Your task to perform on an android device: Go to calendar. Show me events next week Image 0: 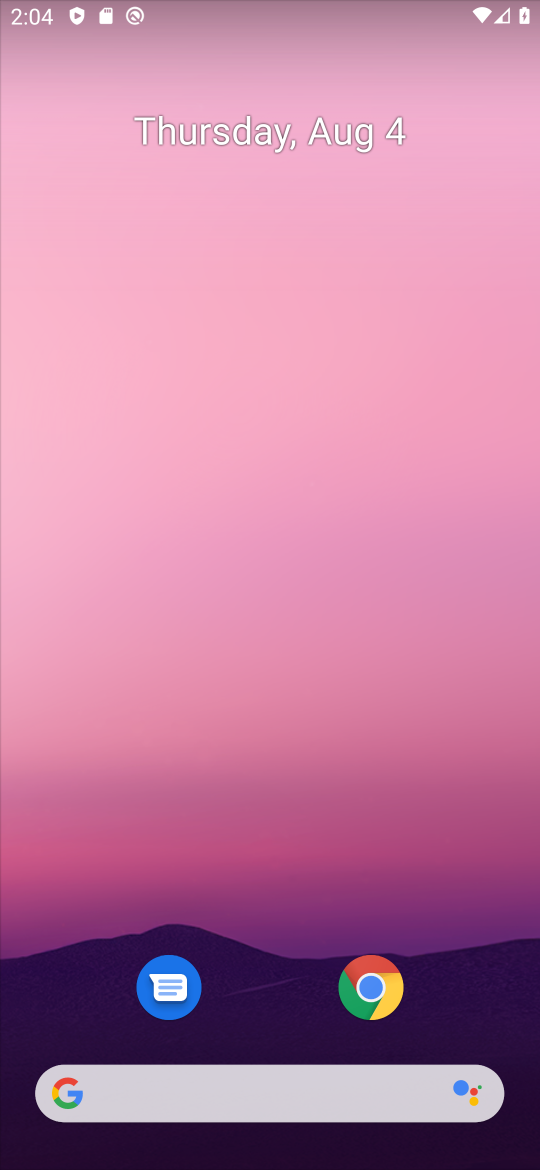
Step 0: drag from (494, 975) to (306, 184)
Your task to perform on an android device: Go to calendar. Show me events next week Image 1: 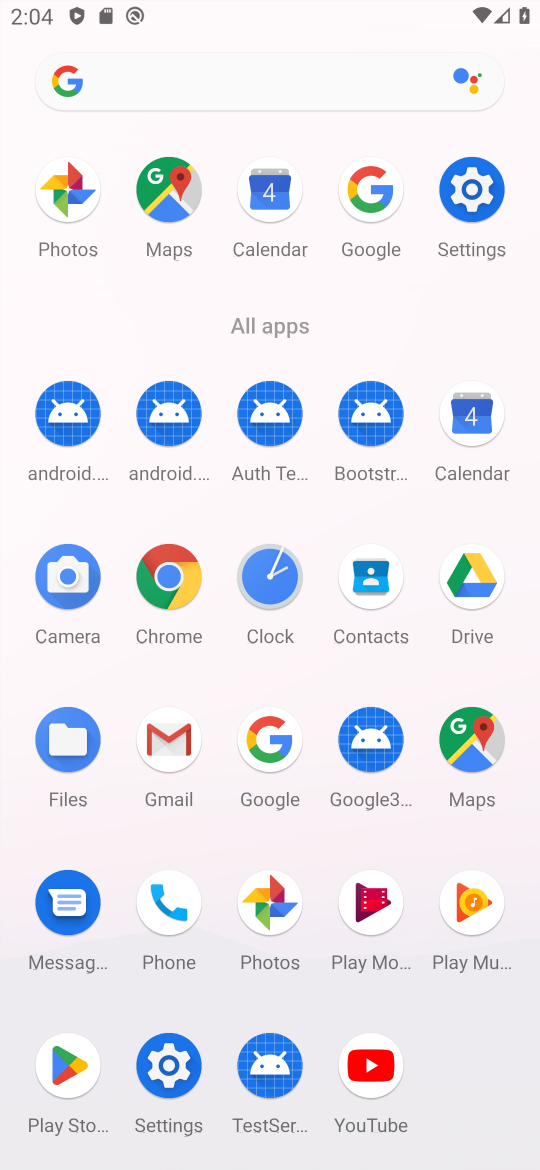
Step 1: click (476, 407)
Your task to perform on an android device: Go to calendar. Show me events next week Image 2: 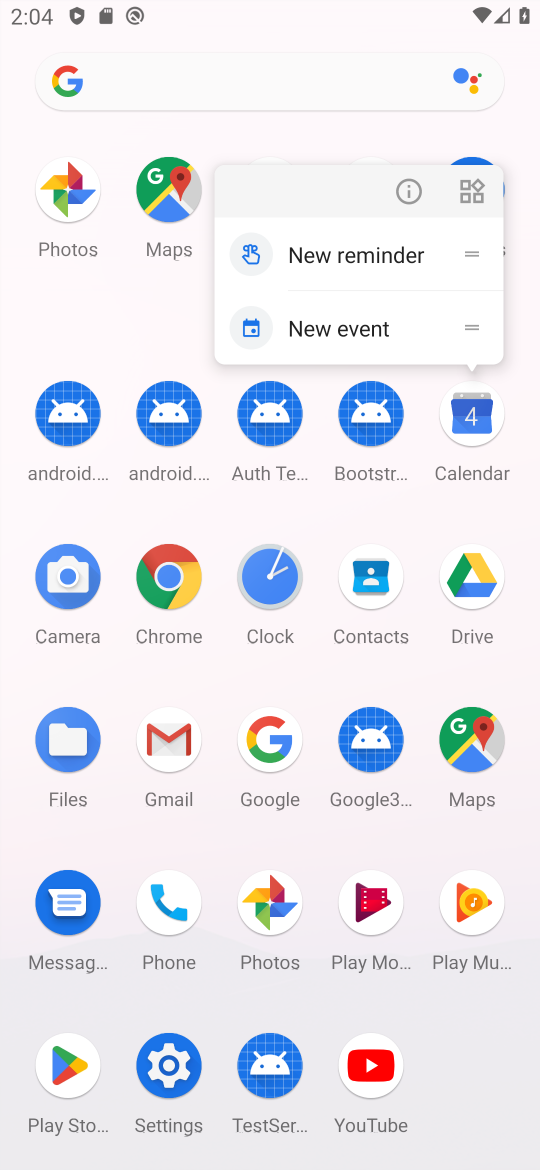
Step 2: click (476, 408)
Your task to perform on an android device: Go to calendar. Show me events next week Image 3: 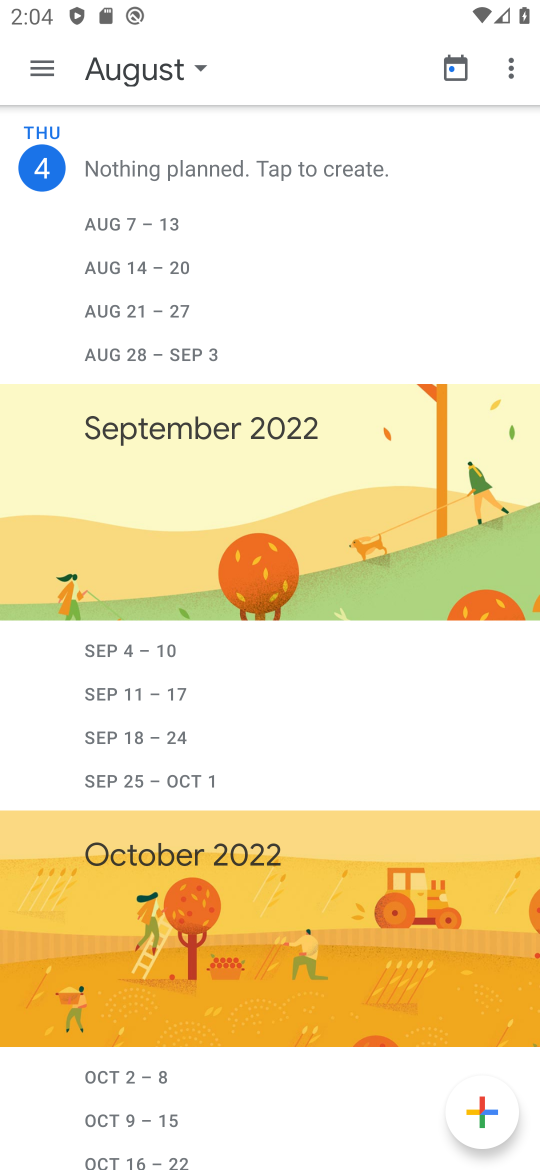
Step 3: task complete